Your task to perform on an android device: What's the weather going to be tomorrow? Image 0: 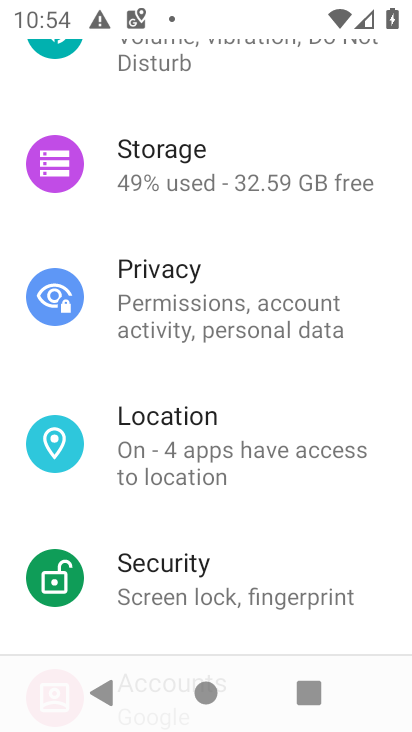
Step 0: press back button
Your task to perform on an android device: What's the weather going to be tomorrow? Image 1: 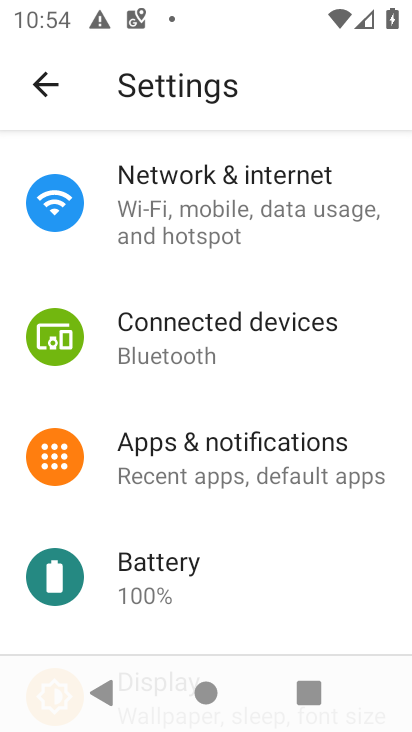
Step 1: click (35, 74)
Your task to perform on an android device: What's the weather going to be tomorrow? Image 2: 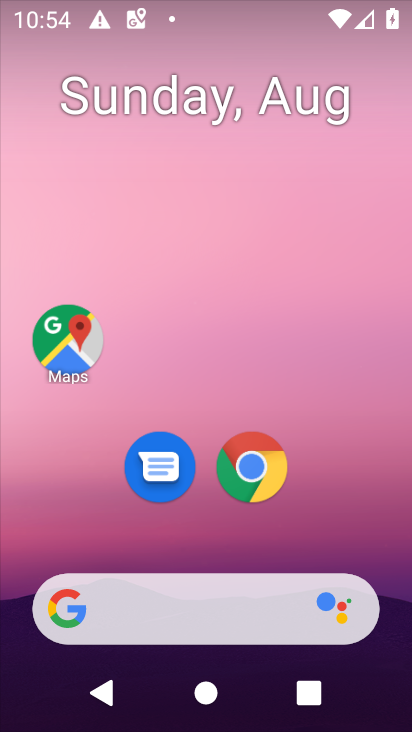
Step 2: drag from (254, 306) to (269, 252)
Your task to perform on an android device: What's the weather going to be tomorrow? Image 3: 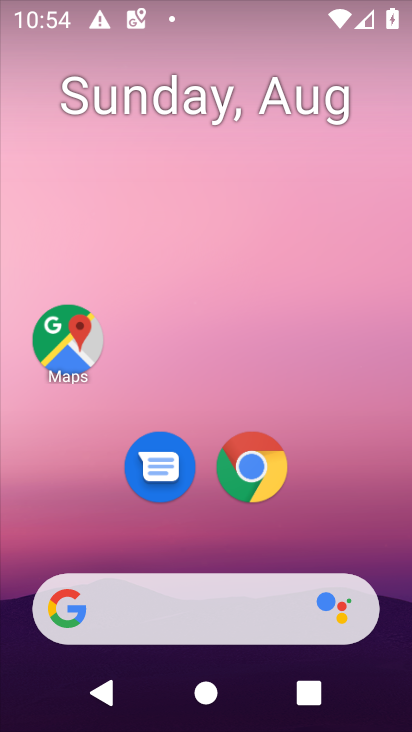
Step 3: drag from (297, 465) to (267, 191)
Your task to perform on an android device: What's the weather going to be tomorrow? Image 4: 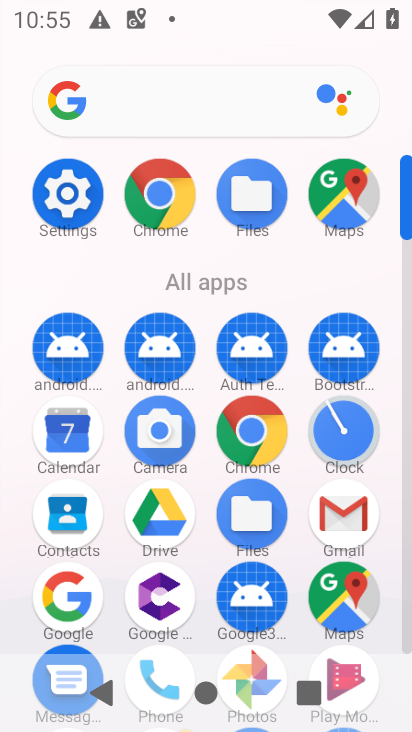
Step 4: click (167, 188)
Your task to perform on an android device: What's the weather going to be tomorrow? Image 5: 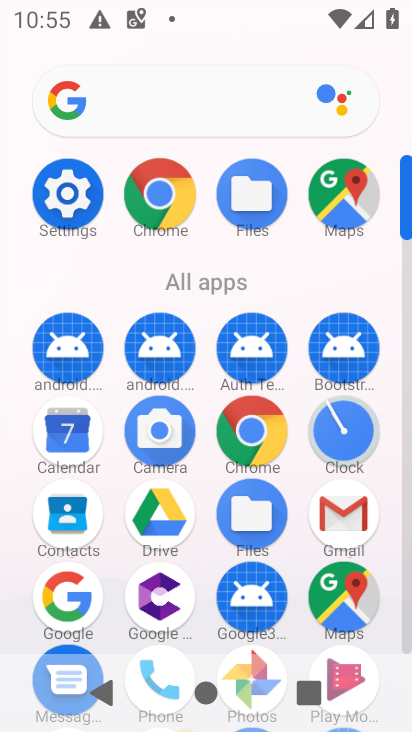
Step 5: click (167, 188)
Your task to perform on an android device: What's the weather going to be tomorrow? Image 6: 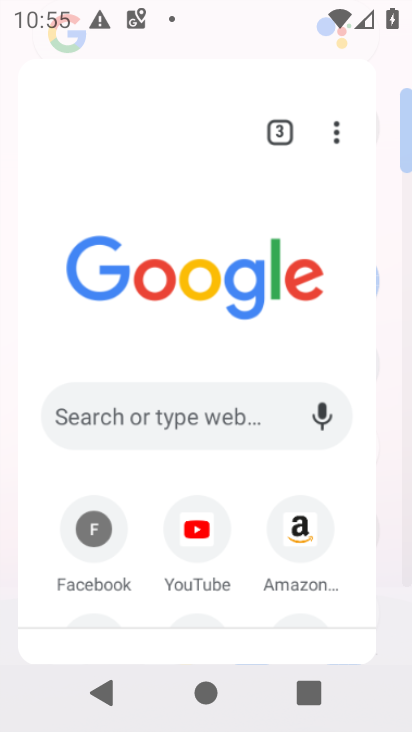
Step 6: click (166, 189)
Your task to perform on an android device: What's the weather going to be tomorrow? Image 7: 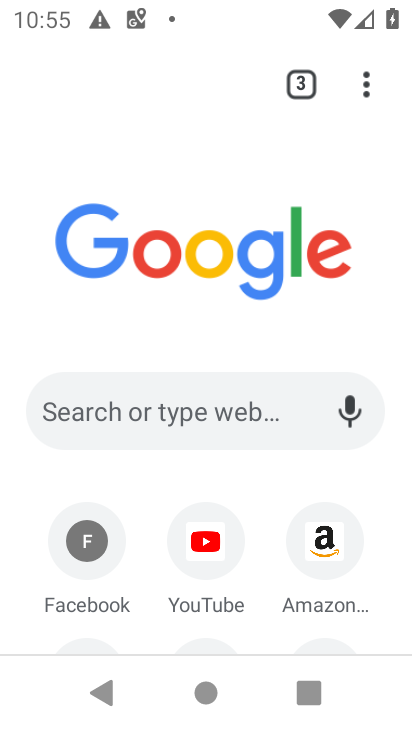
Step 7: click (100, 387)
Your task to perform on an android device: What's the weather going to be tomorrow? Image 8: 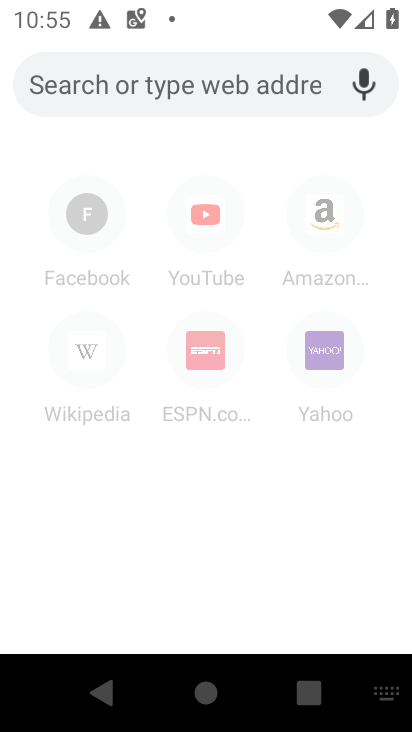
Step 8: type "weather"
Your task to perform on an android device: What's the weather going to be tomorrow? Image 9: 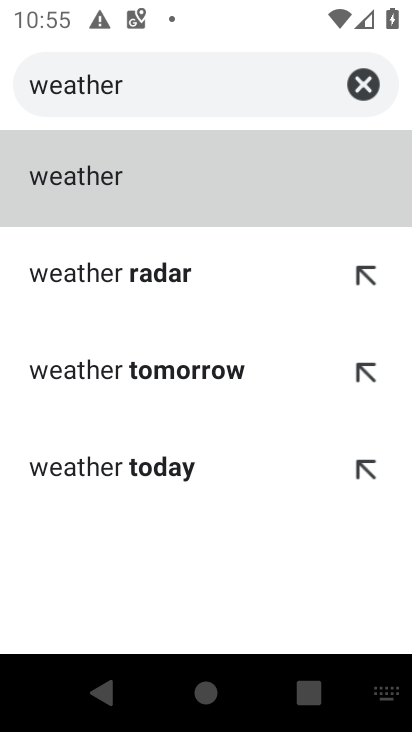
Step 9: click (85, 184)
Your task to perform on an android device: What's the weather going to be tomorrow? Image 10: 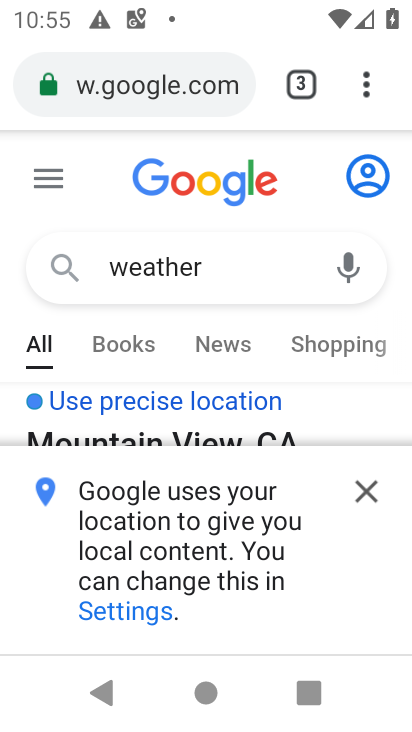
Step 10: click (211, 270)
Your task to perform on an android device: What's the weather going to be tomorrow? Image 11: 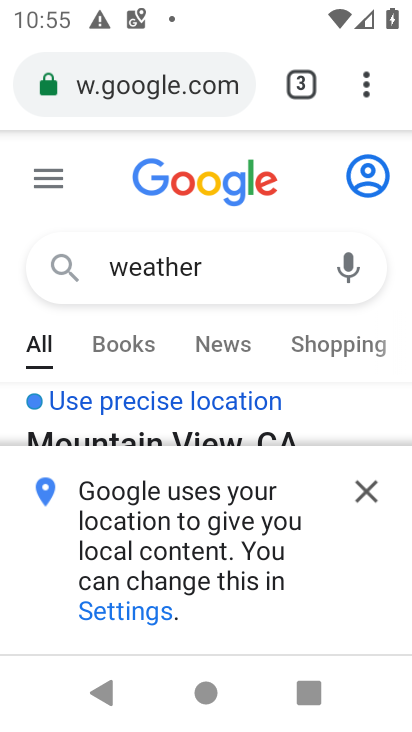
Step 11: click (211, 270)
Your task to perform on an android device: What's the weather going to be tomorrow? Image 12: 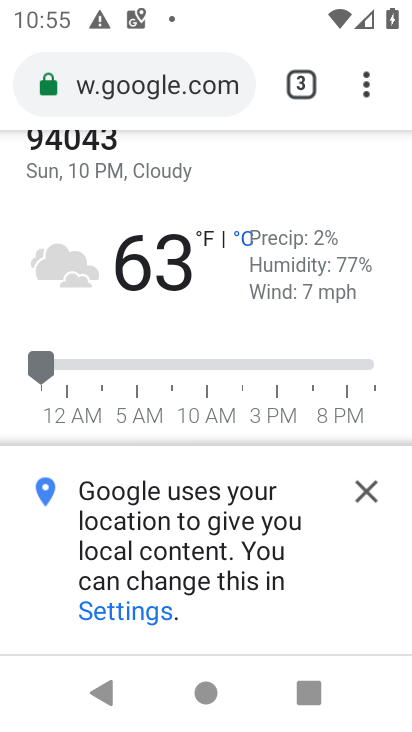
Step 12: task complete